Your task to perform on an android device: Open settings on Google Maps Image 0: 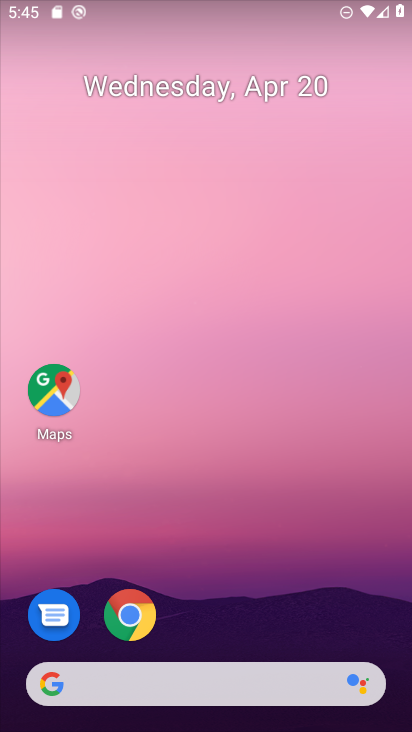
Step 0: click (52, 387)
Your task to perform on an android device: Open settings on Google Maps Image 1: 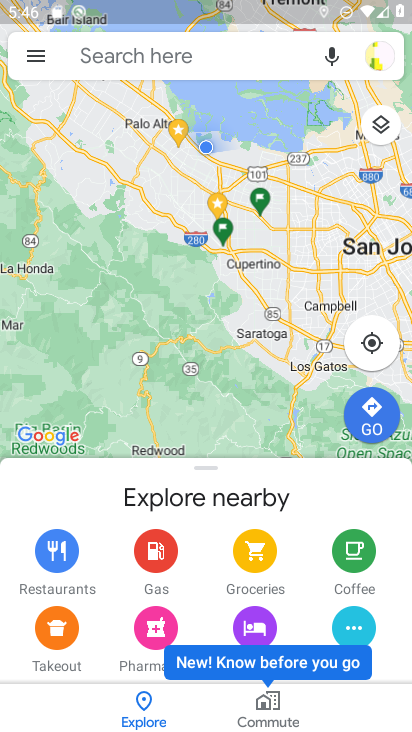
Step 1: click (35, 56)
Your task to perform on an android device: Open settings on Google Maps Image 2: 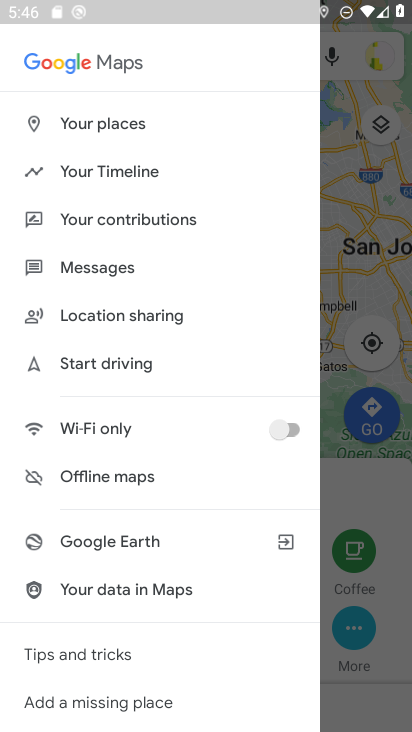
Step 2: drag from (100, 625) to (96, 313)
Your task to perform on an android device: Open settings on Google Maps Image 3: 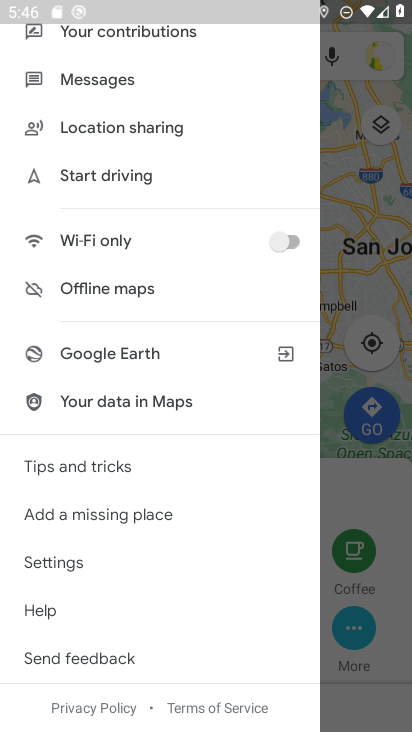
Step 3: click (69, 561)
Your task to perform on an android device: Open settings on Google Maps Image 4: 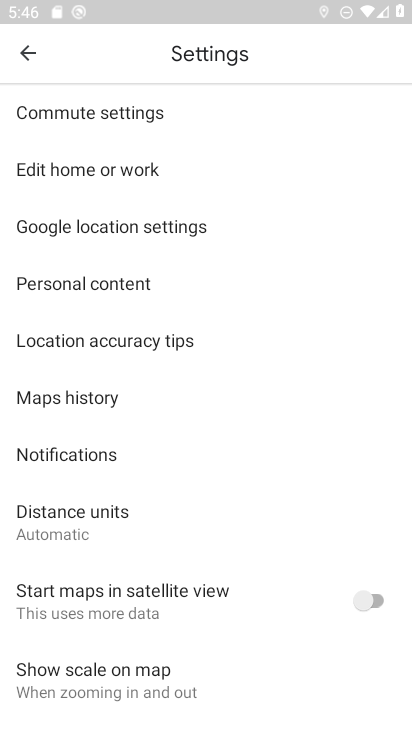
Step 4: task complete